Your task to perform on an android device: Go to Reddit.com Image 0: 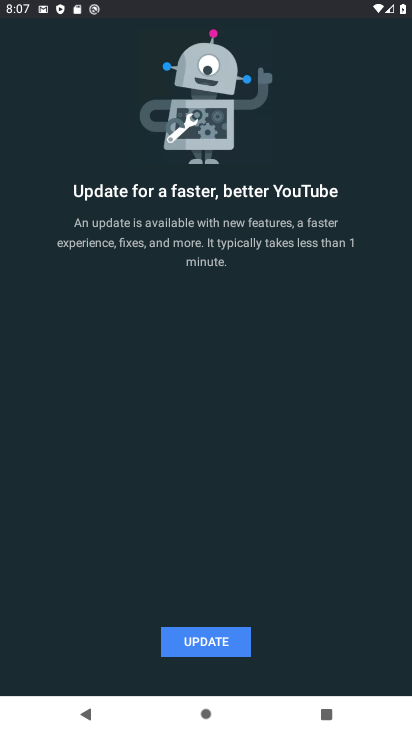
Step 0: press back button
Your task to perform on an android device: Go to Reddit.com Image 1: 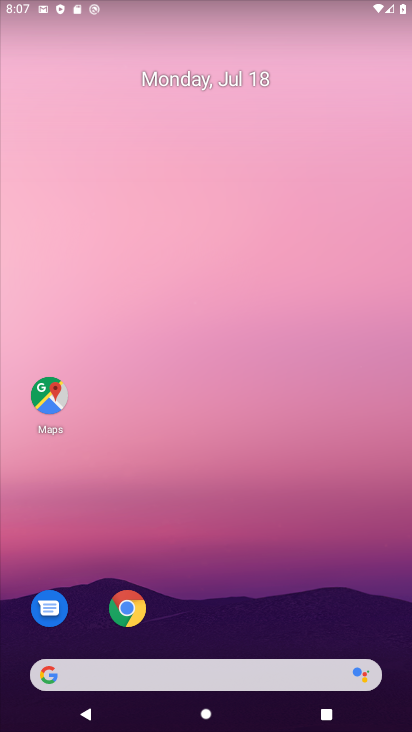
Step 1: click (111, 602)
Your task to perform on an android device: Go to Reddit.com Image 2: 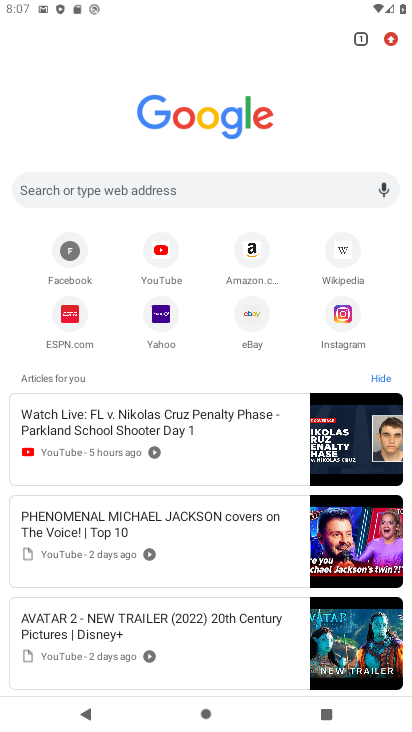
Step 2: click (128, 179)
Your task to perform on an android device: Go to Reddit.com Image 3: 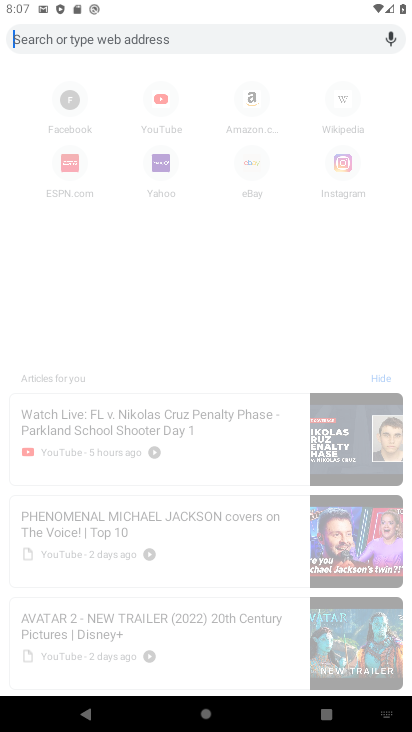
Step 3: type "Reddit.com"
Your task to perform on an android device: Go to Reddit.com Image 4: 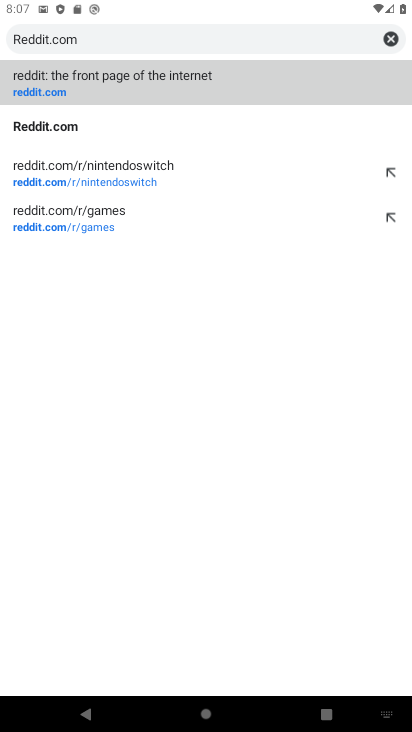
Step 4: click (148, 73)
Your task to perform on an android device: Go to Reddit.com Image 5: 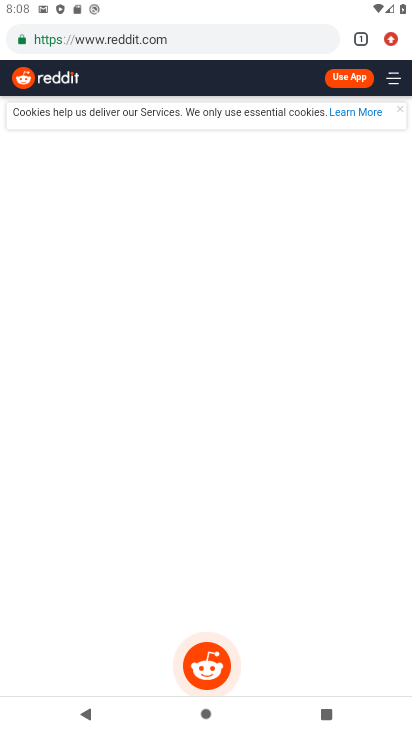
Step 5: task complete